Your task to perform on an android device: turn on bluetooth scan Image 0: 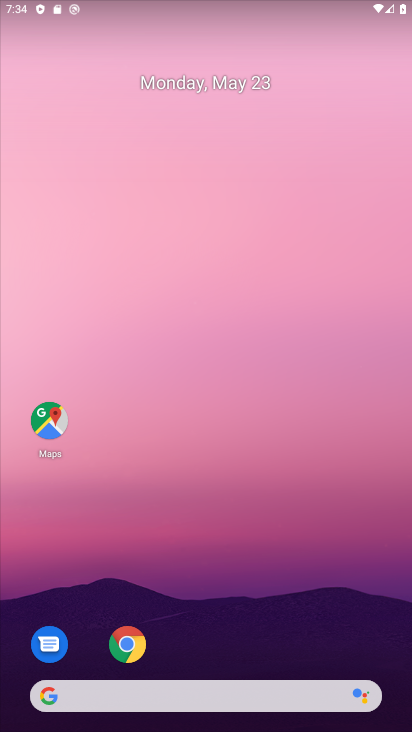
Step 0: drag from (21, 696) to (327, 209)
Your task to perform on an android device: turn on bluetooth scan Image 1: 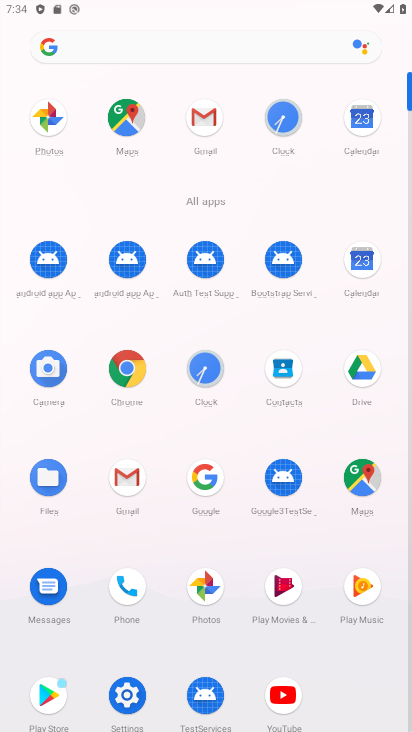
Step 1: click (137, 691)
Your task to perform on an android device: turn on bluetooth scan Image 2: 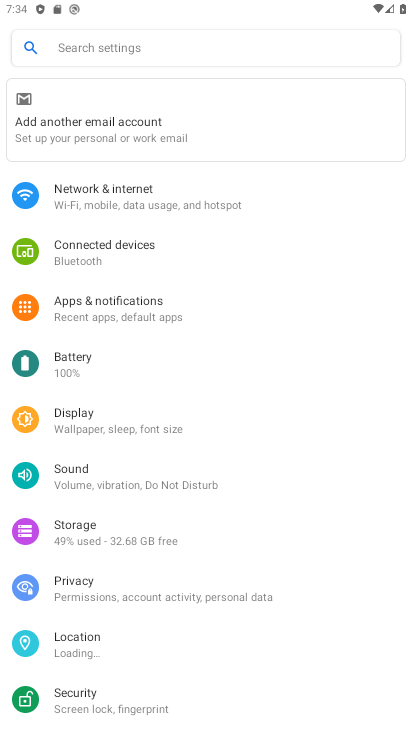
Step 2: click (104, 313)
Your task to perform on an android device: turn on bluetooth scan Image 3: 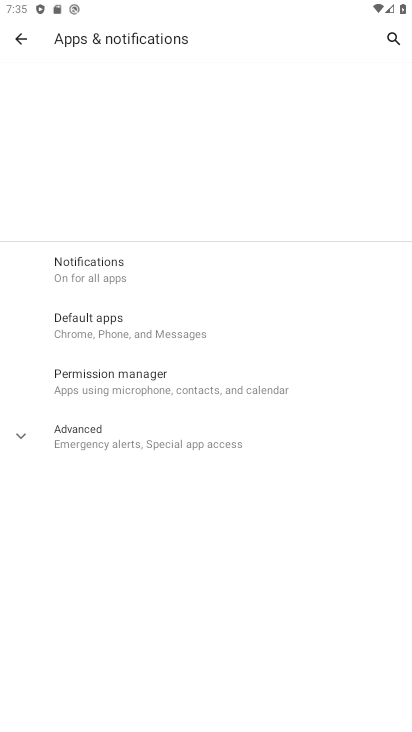
Step 3: press back button
Your task to perform on an android device: turn on bluetooth scan Image 4: 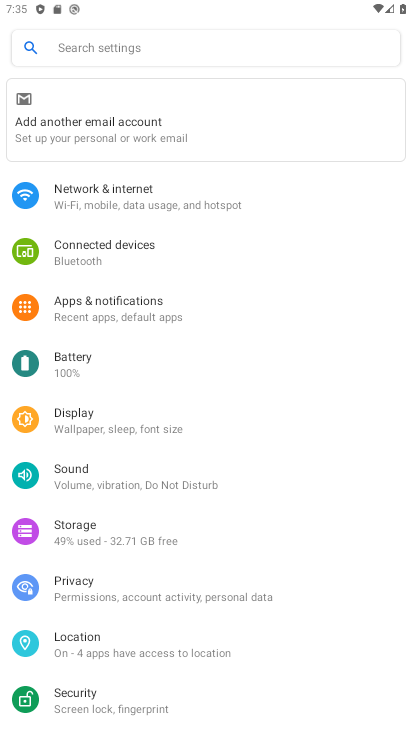
Step 4: click (85, 634)
Your task to perform on an android device: turn on bluetooth scan Image 5: 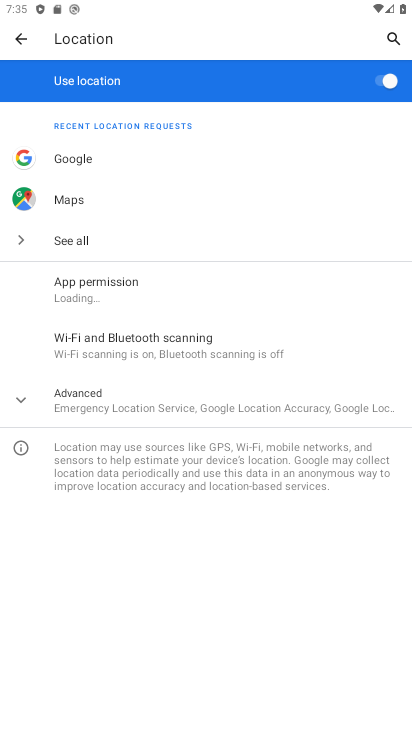
Step 5: click (174, 336)
Your task to perform on an android device: turn on bluetooth scan Image 6: 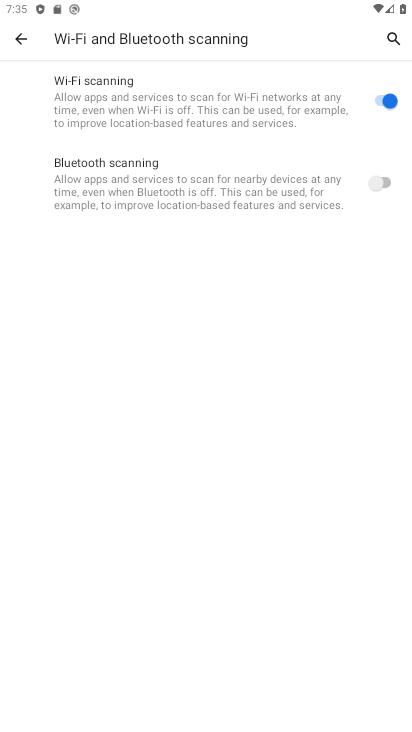
Step 6: click (377, 192)
Your task to perform on an android device: turn on bluetooth scan Image 7: 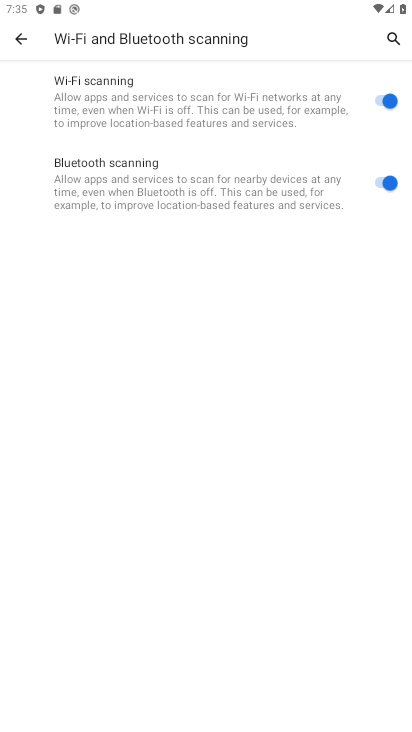
Step 7: task complete